Your task to perform on an android device: Go to network settings Image 0: 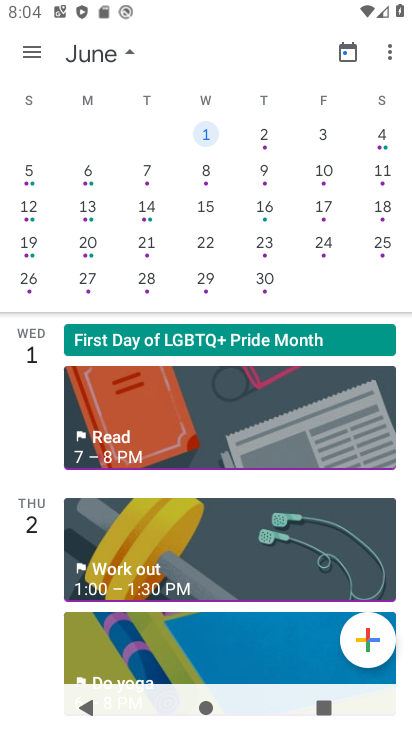
Step 0: press home button
Your task to perform on an android device: Go to network settings Image 1: 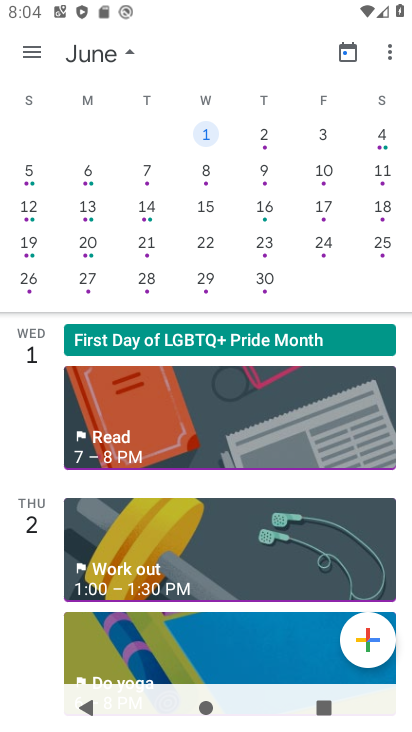
Step 1: press home button
Your task to perform on an android device: Go to network settings Image 2: 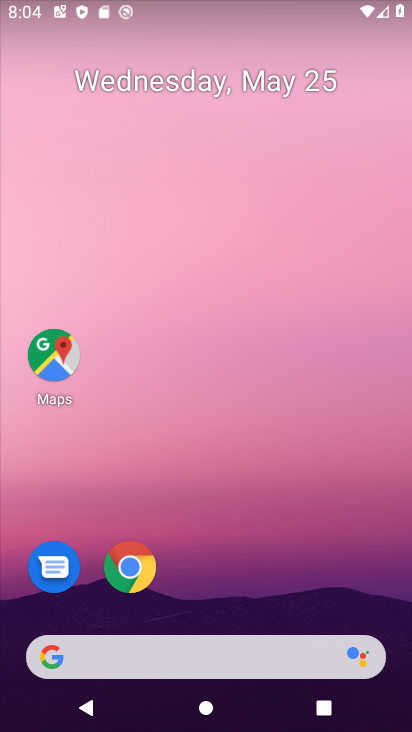
Step 2: drag from (271, 623) to (298, 153)
Your task to perform on an android device: Go to network settings Image 3: 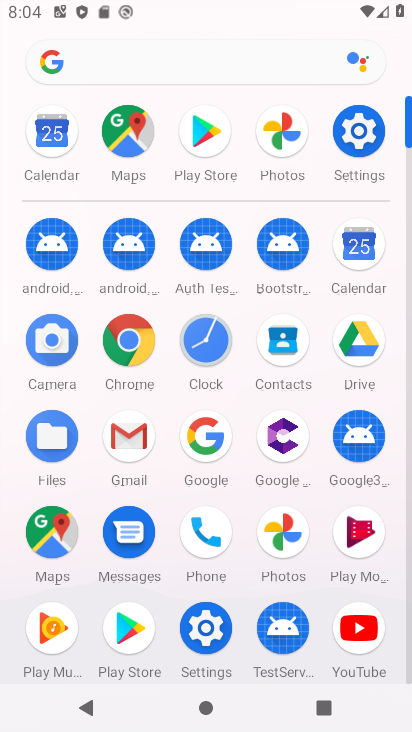
Step 3: click (354, 164)
Your task to perform on an android device: Go to network settings Image 4: 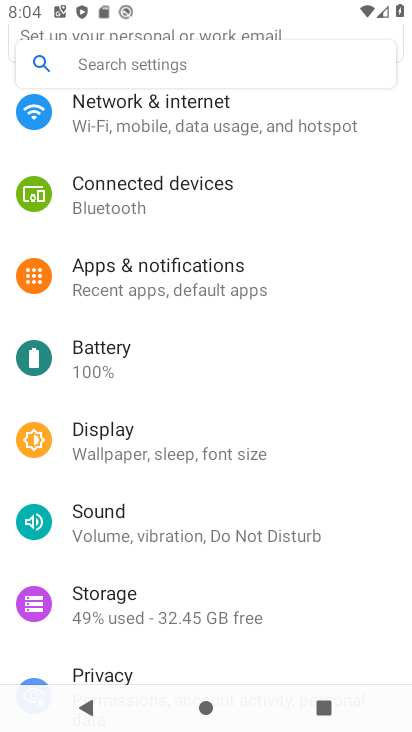
Step 4: click (249, 140)
Your task to perform on an android device: Go to network settings Image 5: 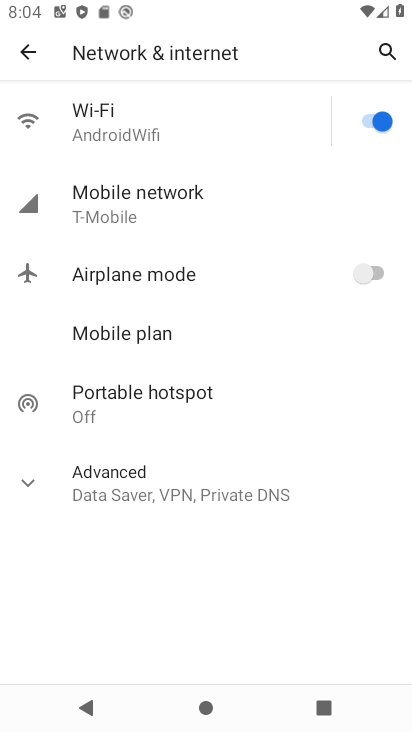
Step 5: task complete